Your task to perform on an android device: Go to internet settings Image 0: 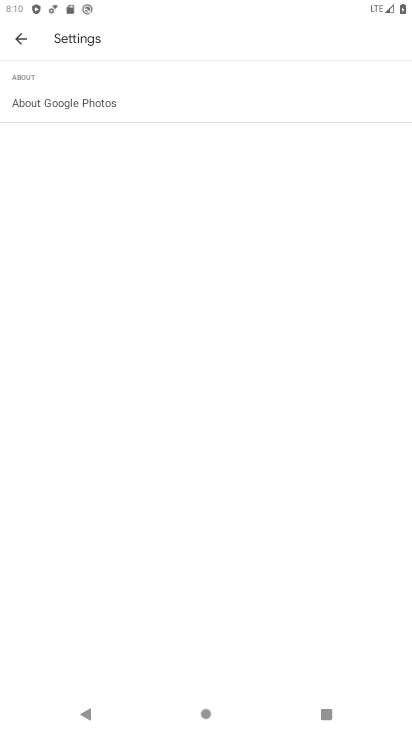
Step 0: press home button
Your task to perform on an android device: Go to internet settings Image 1: 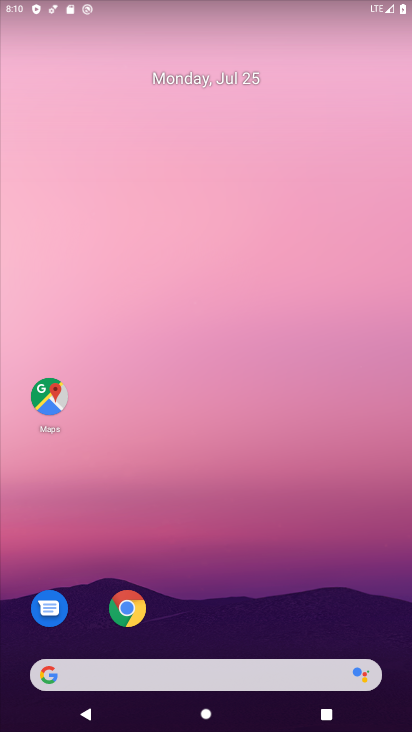
Step 1: drag from (234, 596) to (234, 135)
Your task to perform on an android device: Go to internet settings Image 2: 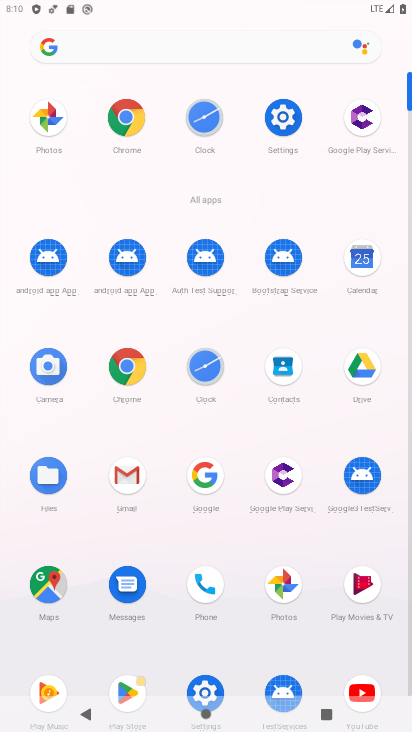
Step 2: click (283, 125)
Your task to perform on an android device: Go to internet settings Image 3: 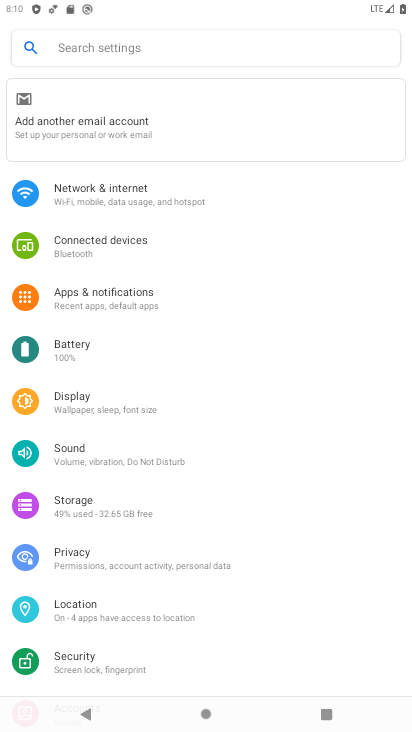
Step 3: click (121, 198)
Your task to perform on an android device: Go to internet settings Image 4: 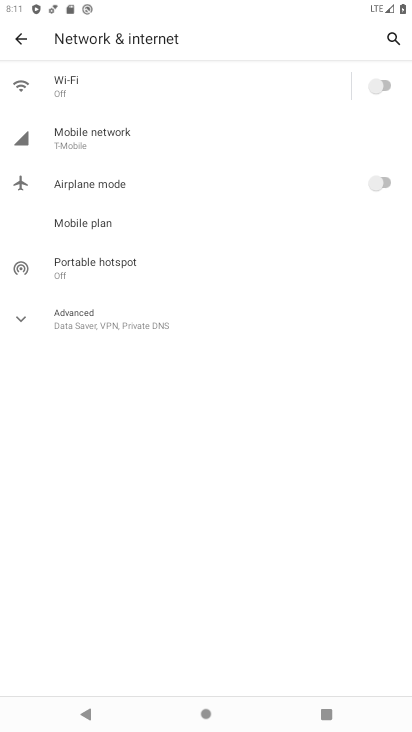
Step 4: task complete